Your task to perform on an android device: turn on wifi Image 0: 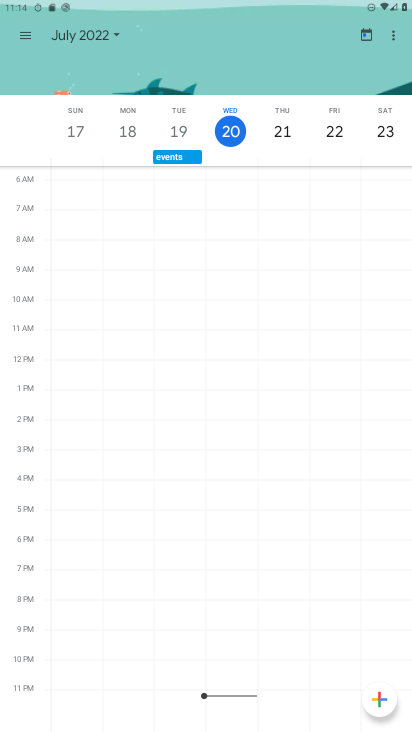
Step 0: press home button
Your task to perform on an android device: turn on wifi Image 1: 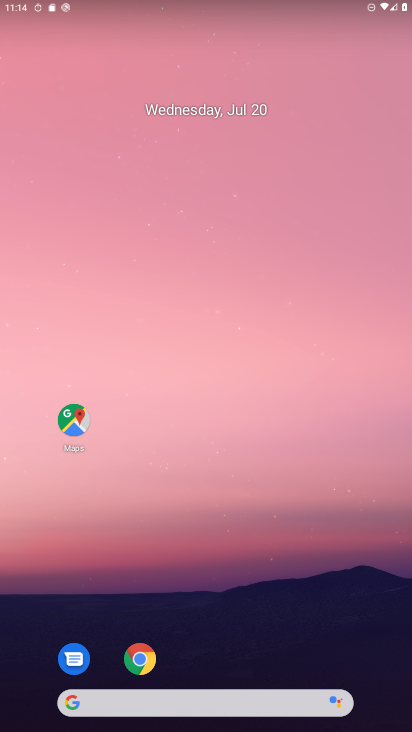
Step 1: drag from (264, 631) to (149, 21)
Your task to perform on an android device: turn on wifi Image 2: 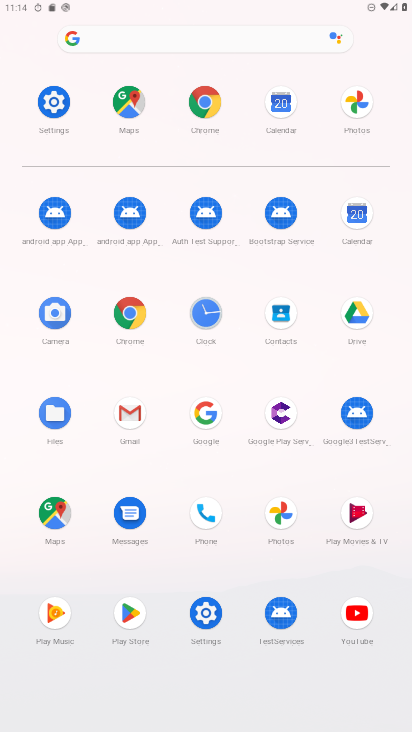
Step 2: click (55, 97)
Your task to perform on an android device: turn on wifi Image 3: 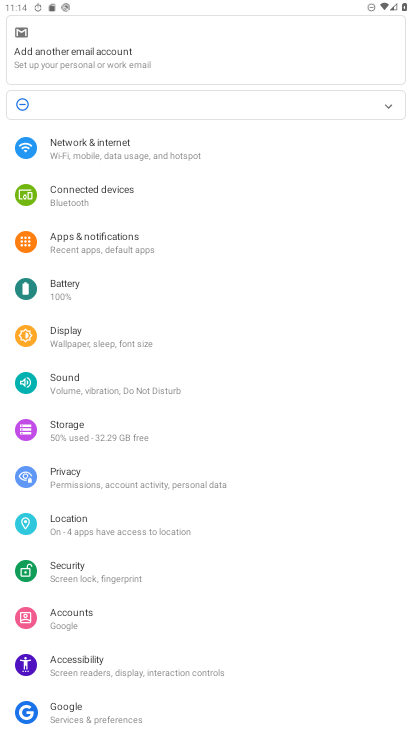
Step 3: click (171, 150)
Your task to perform on an android device: turn on wifi Image 4: 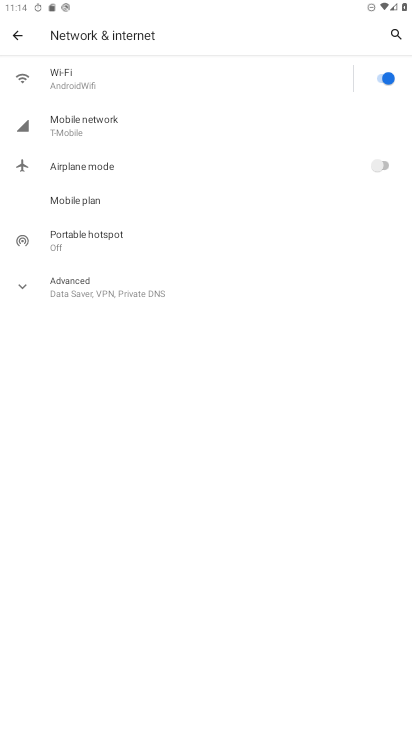
Step 4: task complete